Your task to perform on an android device: make emails show in primary in the gmail app Image 0: 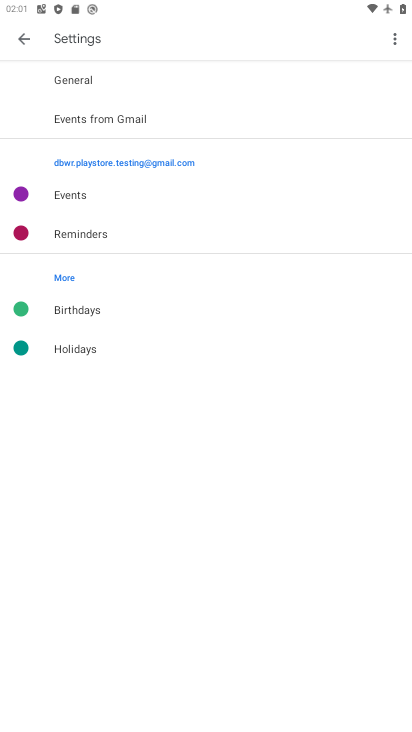
Step 0: press home button
Your task to perform on an android device: make emails show in primary in the gmail app Image 1: 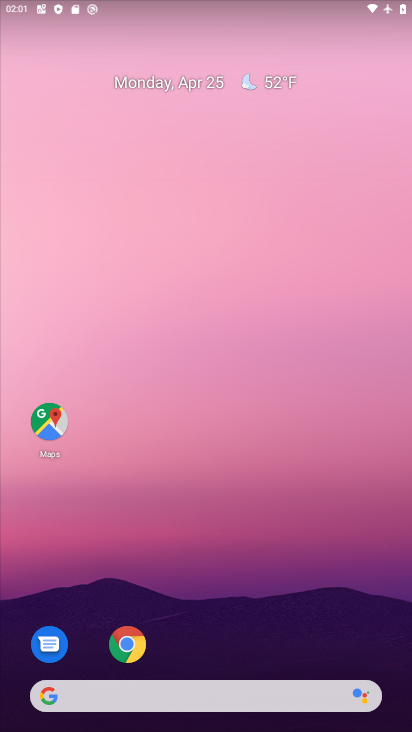
Step 1: drag from (219, 632) to (189, 12)
Your task to perform on an android device: make emails show in primary in the gmail app Image 2: 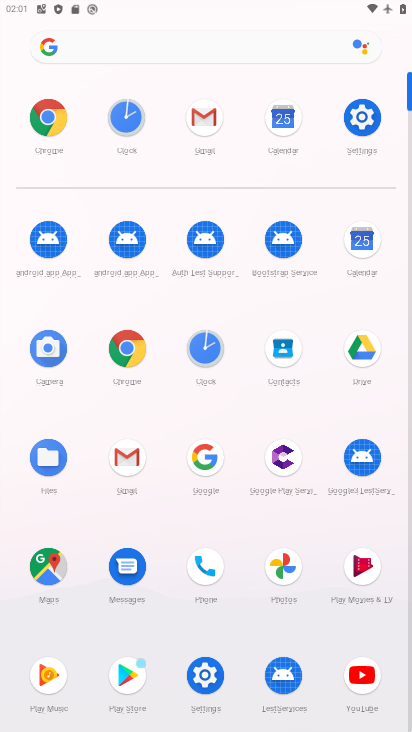
Step 2: click (383, 134)
Your task to perform on an android device: make emails show in primary in the gmail app Image 3: 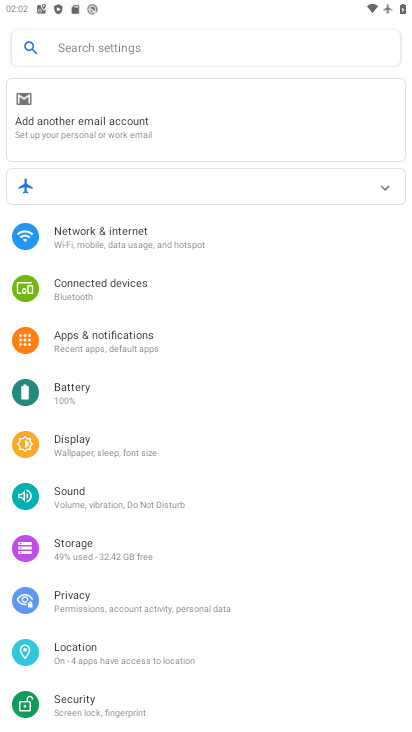
Step 3: drag from (287, 513) to (233, 153)
Your task to perform on an android device: make emails show in primary in the gmail app Image 4: 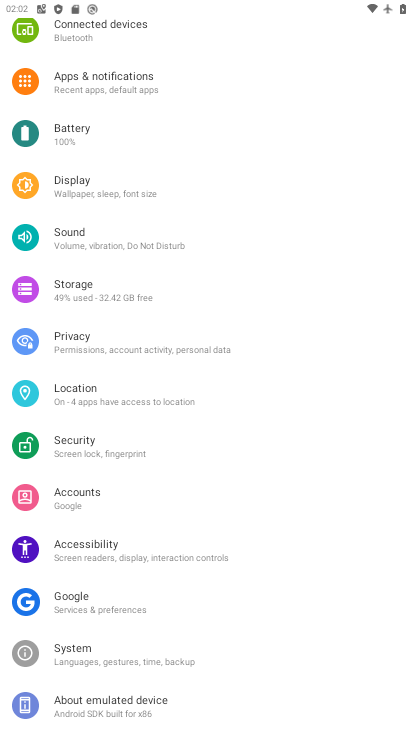
Step 4: press home button
Your task to perform on an android device: make emails show in primary in the gmail app Image 5: 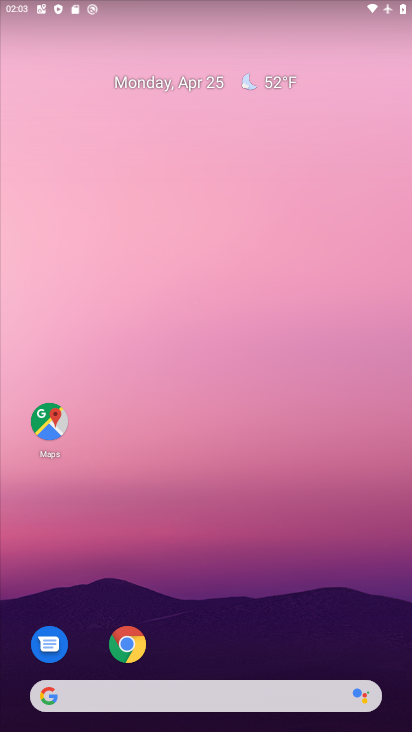
Step 5: drag from (218, 626) to (212, 420)
Your task to perform on an android device: make emails show in primary in the gmail app Image 6: 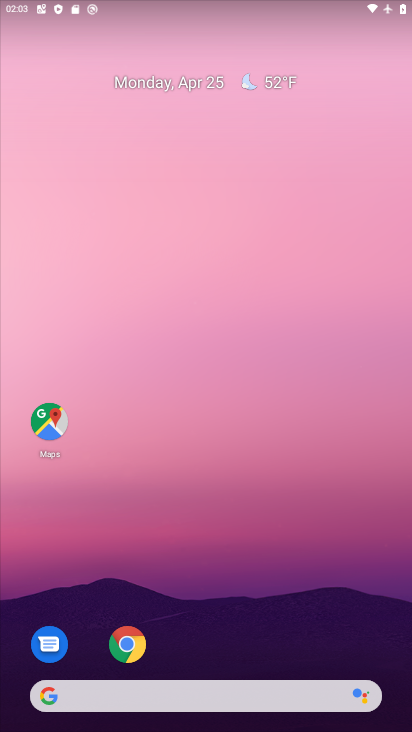
Step 6: drag from (243, 644) to (239, 30)
Your task to perform on an android device: make emails show in primary in the gmail app Image 7: 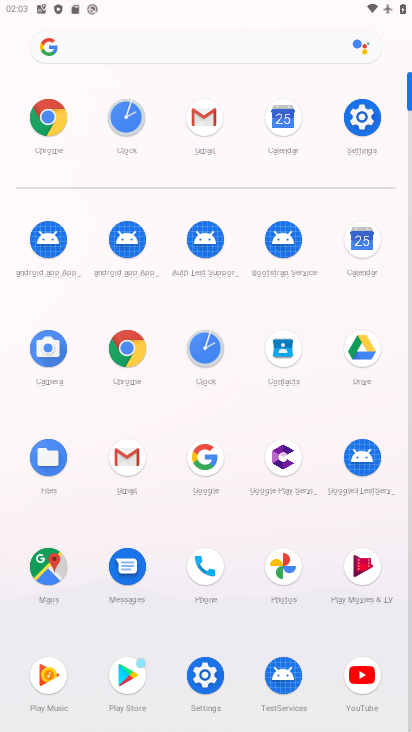
Step 7: click (213, 131)
Your task to perform on an android device: make emails show in primary in the gmail app Image 8: 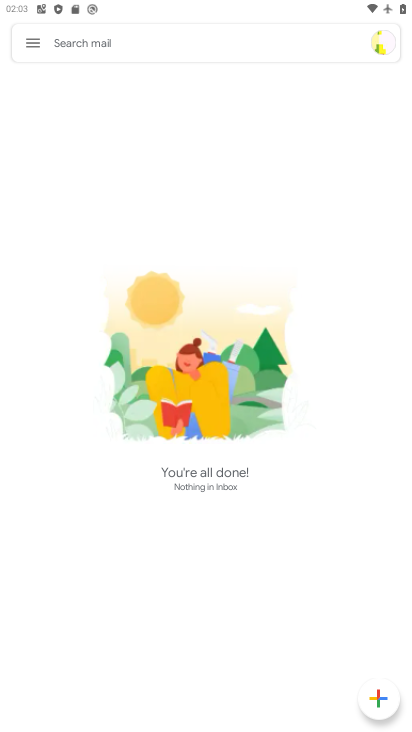
Step 8: click (30, 51)
Your task to perform on an android device: make emails show in primary in the gmail app Image 9: 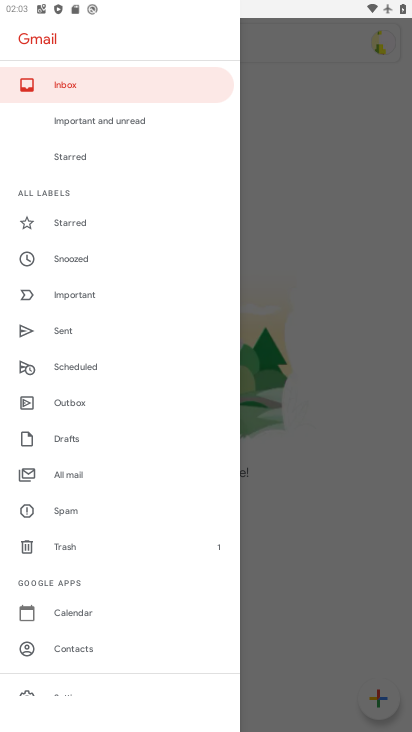
Step 9: drag from (94, 581) to (152, 370)
Your task to perform on an android device: make emails show in primary in the gmail app Image 10: 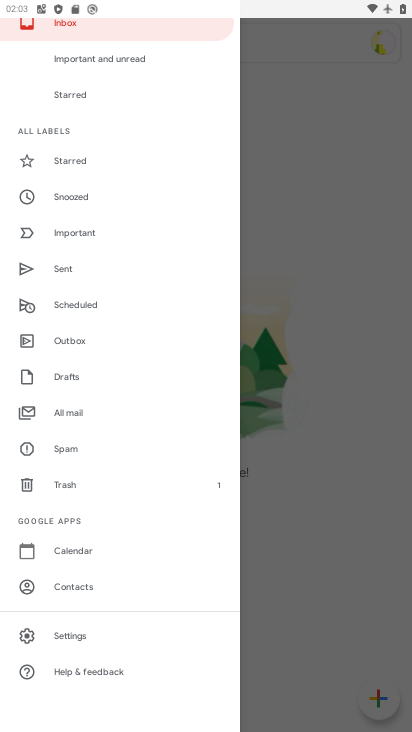
Step 10: click (105, 634)
Your task to perform on an android device: make emails show in primary in the gmail app Image 11: 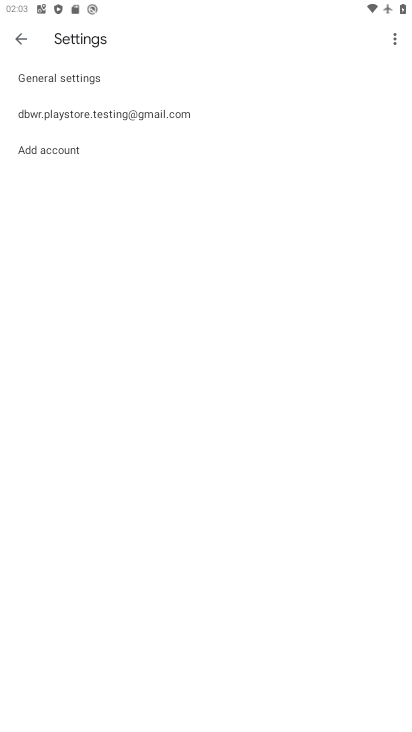
Step 11: click (171, 100)
Your task to perform on an android device: make emails show in primary in the gmail app Image 12: 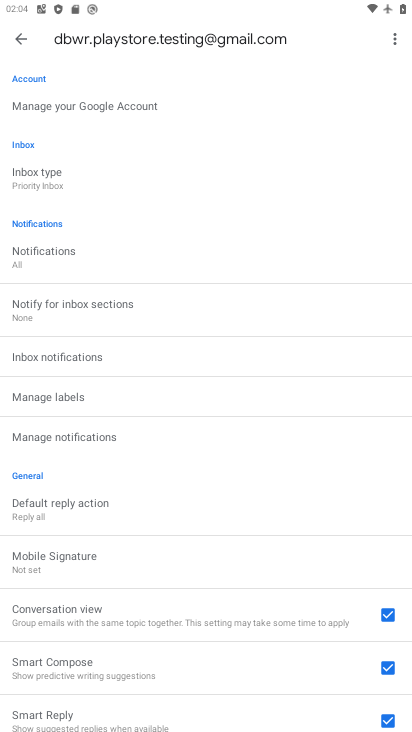
Step 12: click (90, 172)
Your task to perform on an android device: make emails show in primary in the gmail app Image 13: 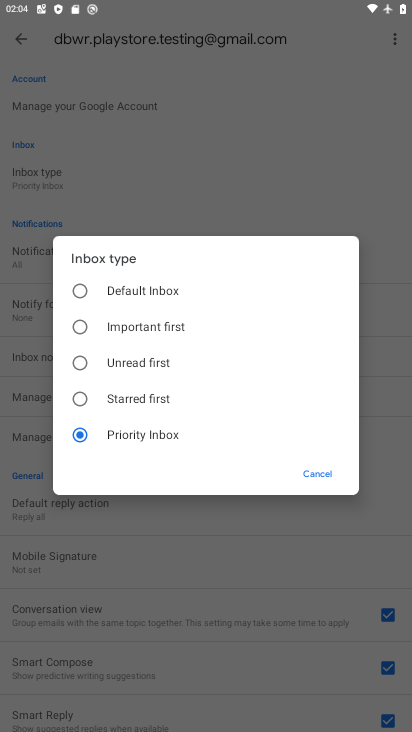
Step 13: click (142, 443)
Your task to perform on an android device: make emails show in primary in the gmail app Image 14: 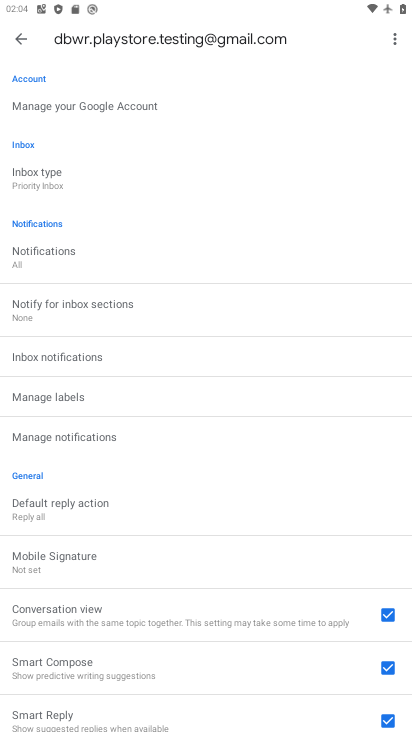
Step 14: task complete